Your task to perform on an android device: Open sound settings Image 0: 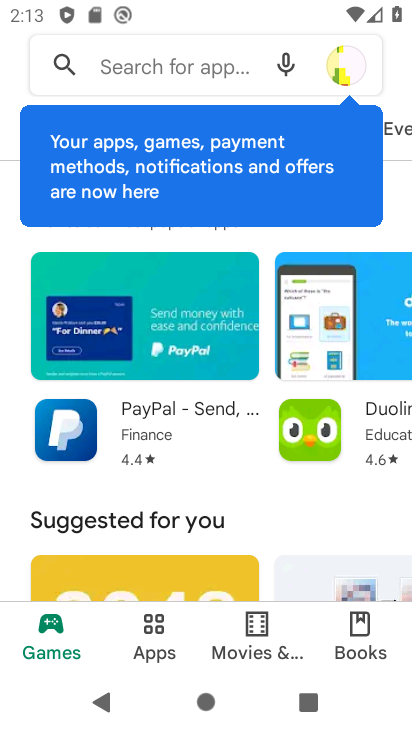
Step 0: press home button
Your task to perform on an android device: Open sound settings Image 1: 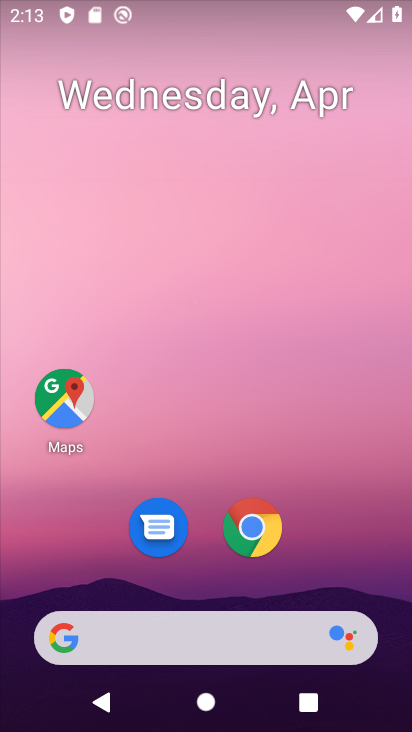
Step 1: drag from (359, 384) to (352, 169)
Your task to perform on an android device: Open sound settings Image 2: 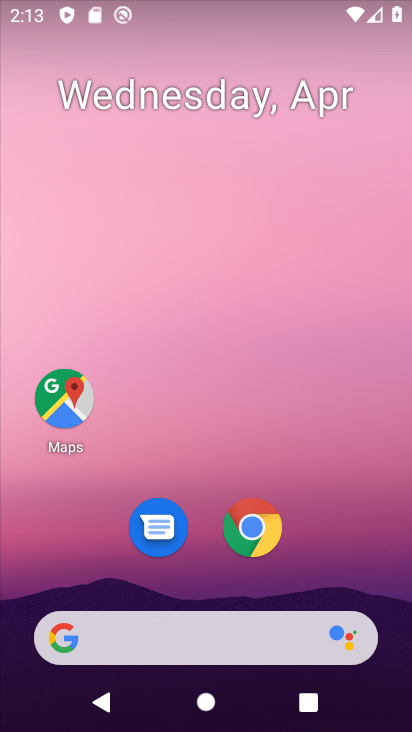
Step 2: drag from (365, 543) to (313, 85)
Your task to perform on an android device: Open sound settings Image 3: 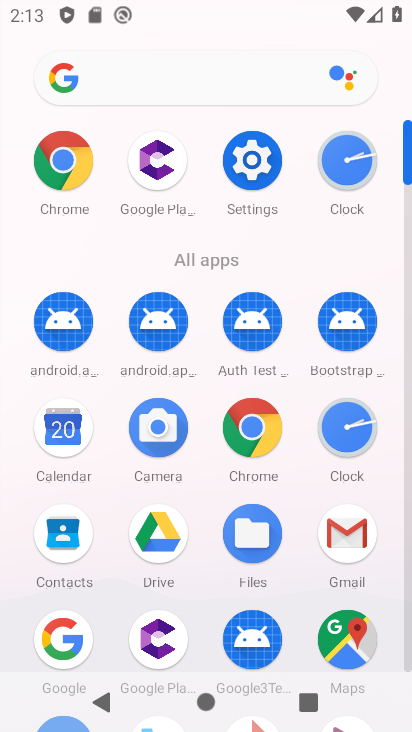
Step 3: click (247, 171)
Your task to perform on an android device: Open sound settings Image 4: 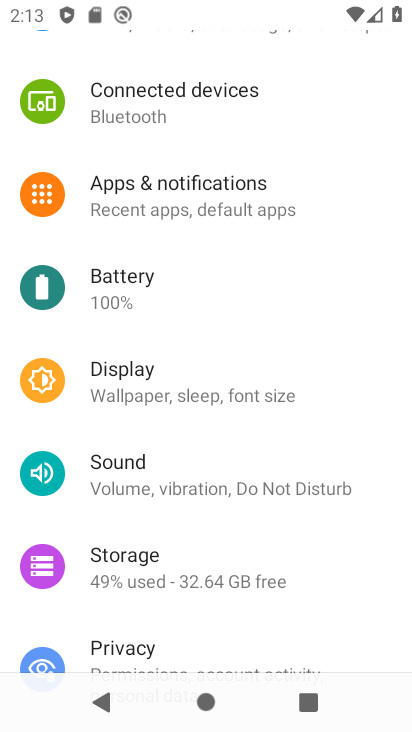
Step 4: drag from (232, 522) to (255, 196)
Your task to perform on an android device: Open sound settings Image 5: 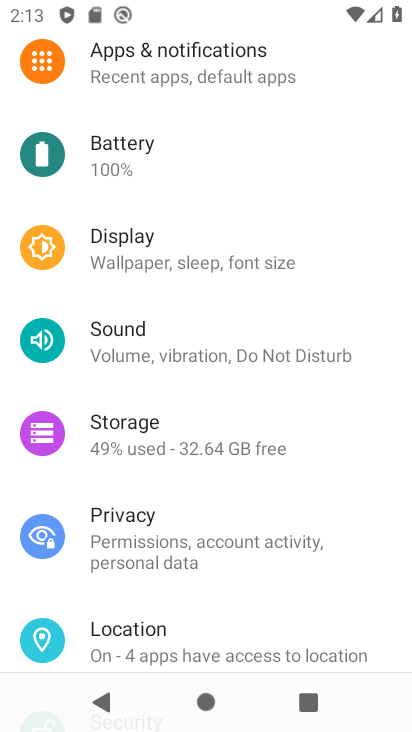
Step 5: drag from (208, 561) to (178, 205)
Your task to perform on an android device: Open sound settings Image 6: 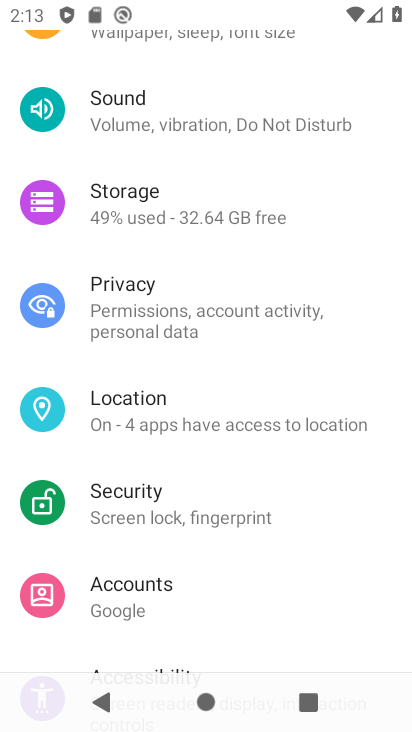
Step 6: drag from (195, 622) to (179, 211)
Your task to perform on an android device: Open sound settings Image 7: 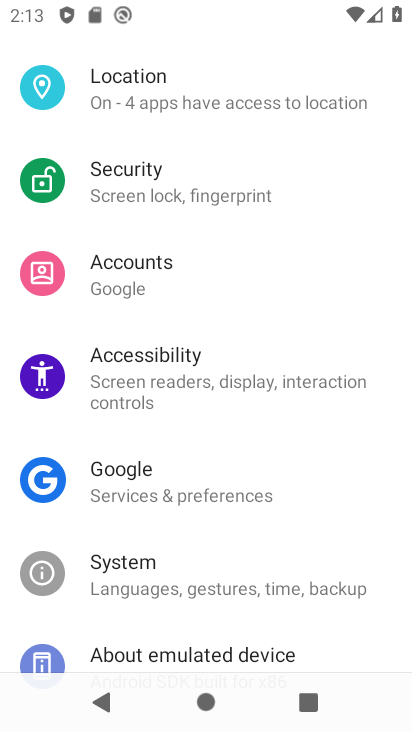
Step 7: drag from (154, 575) to (166, 199)
Your task to perform on an android device: Open sound settings Image 8: 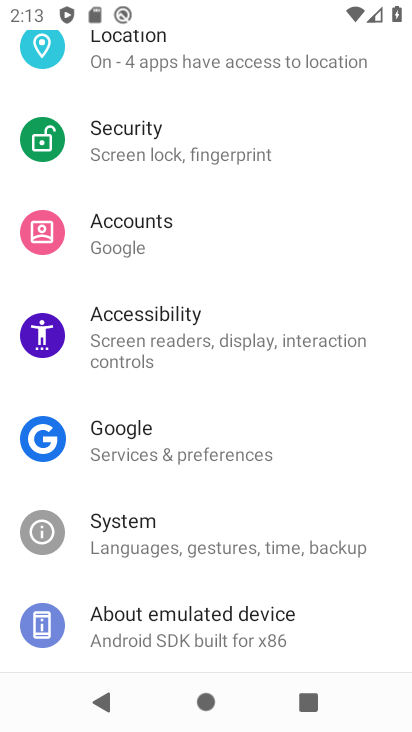
Step 8: drag from (215, 596) to (239, 277)
Your task to perform on an android device: Open sound settings Image 9: 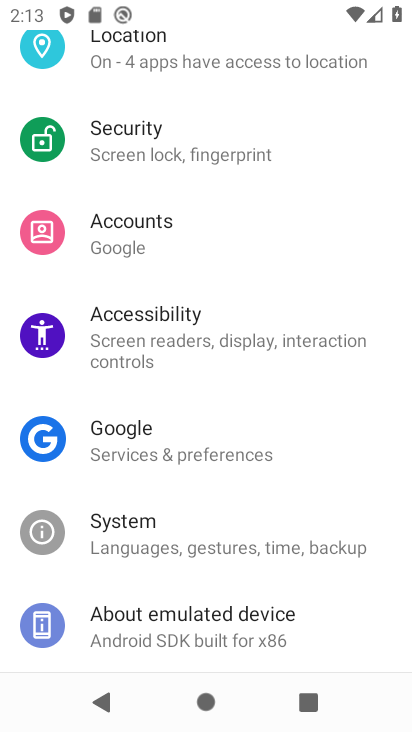
Step 9: drag from (239, 564) to (234, 323)
Your task to perform on an android device: Open sound settings Image 10: 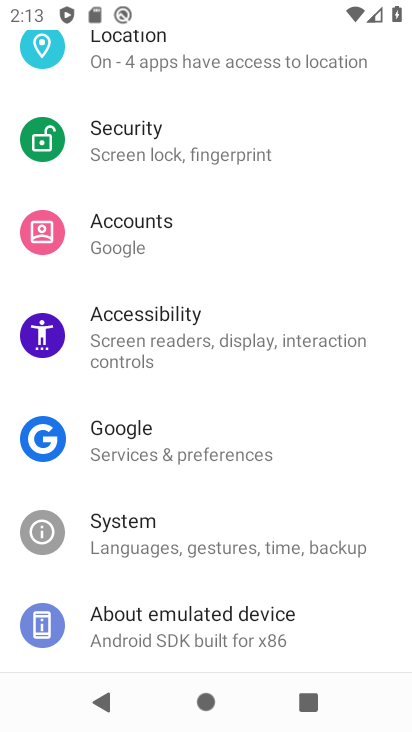
Step 10: drag from (211, 551) to (240, 281)
Your task to perform on an android device: Open sound settings Image 11: 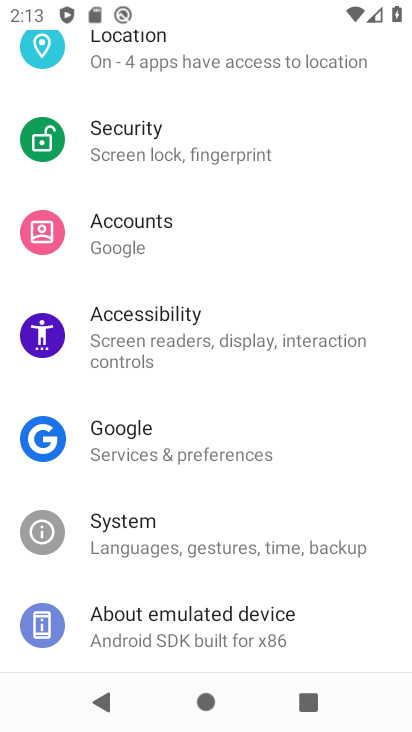
Step 11: drag from (244, 333) to (184, 571)
Your task to perform on an android device: Open sound settings Image 12: 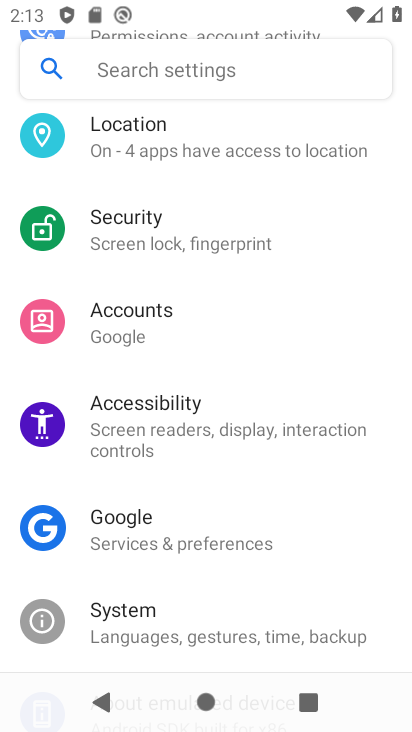
Step 12: drag from (256, 258) to (235, 599)
Your task to perform on an android device: Open sound settings Image 13: 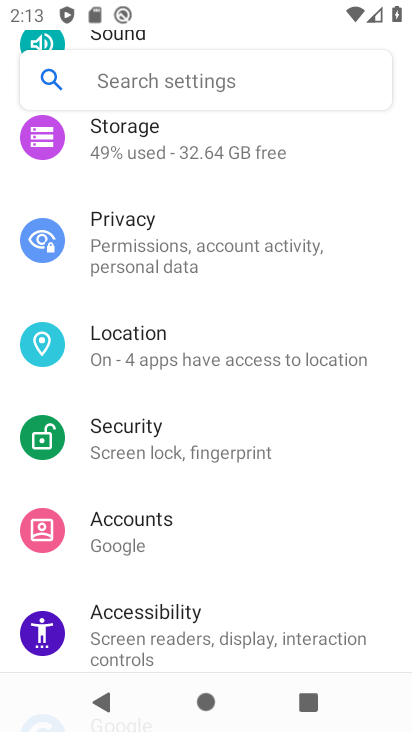
Step 13: drag from (241, 211) to (190, 619)
Your task to perform on an android device: Open sound settings Image 14: 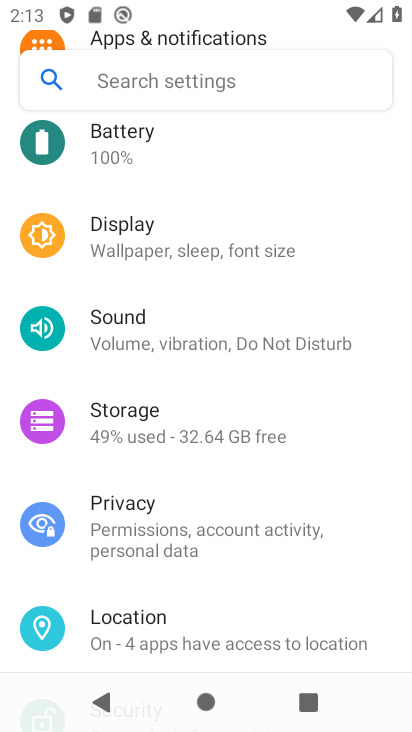
Step 14: click (134, 334)
Your task to perform on an android device: Open sound settings Image 15: 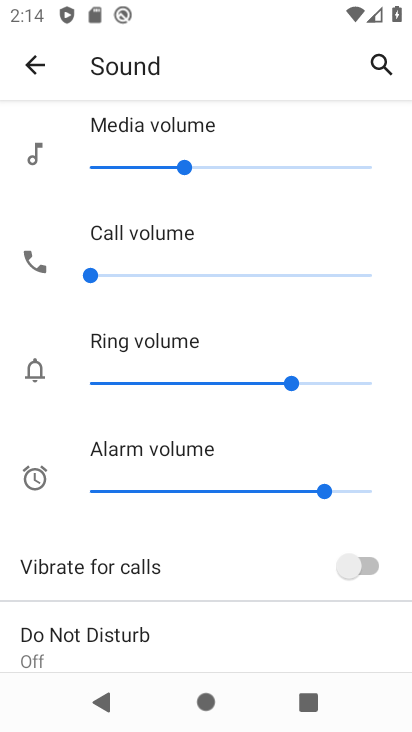
Step 15: task complete